Your task to perform on an android device: Go to battery settings Image 0: 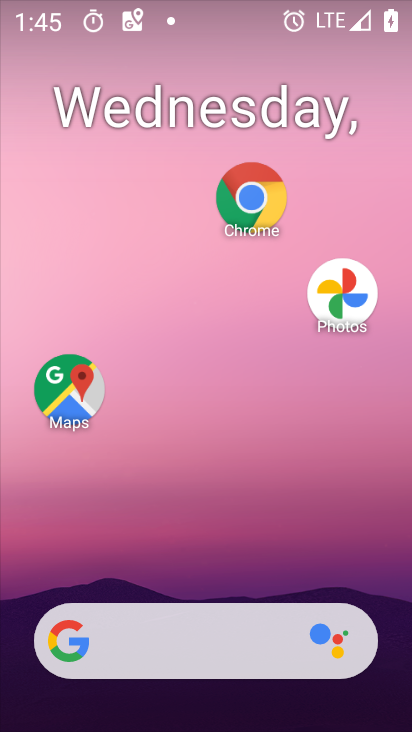
Step 0: drag from (232, 647) to (273, 242)
Your task to perform on an android device: Go to battery settings Image 1: 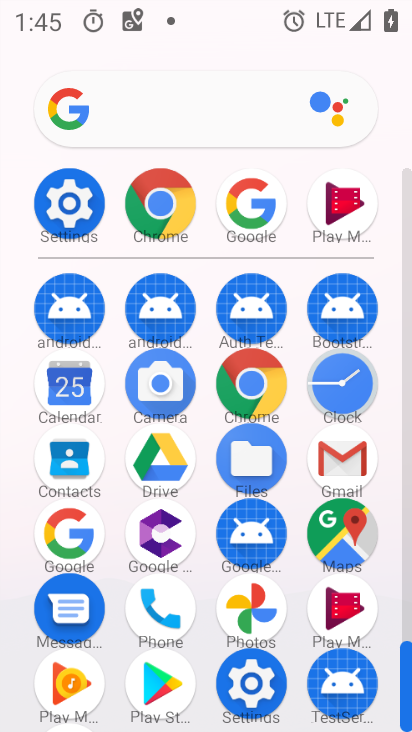
Step 1: click (78, 215)
Your task to perform on an android device: Go to battery settings Image 2: 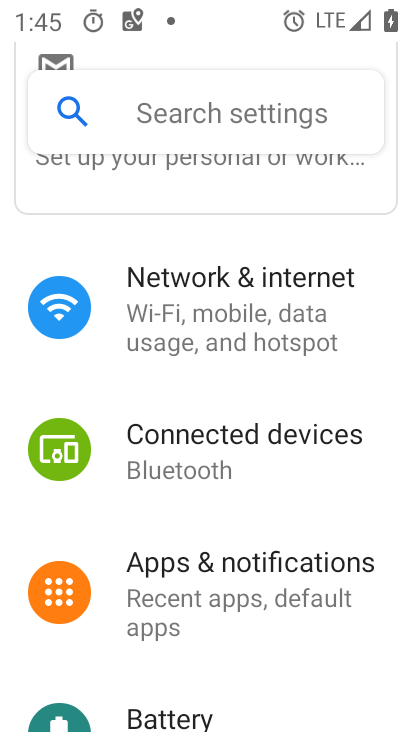
Step 2: drag from (219, 621) to (271, 308)
Your task to perform on an android device: Go to battery settings Image 3: 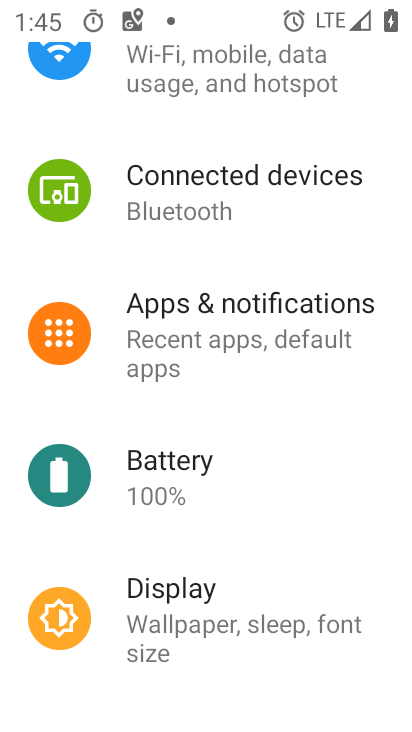
Step 3: click (189, 491)
Your task to perform on an android device: Go to battery settings Image 4: 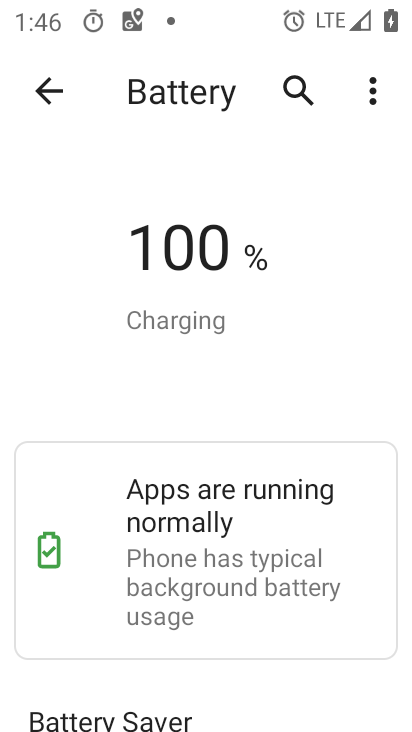
Step 4: task complete